Your task to perform on an android device: Open calendar and show me the first week of next month Image 0: 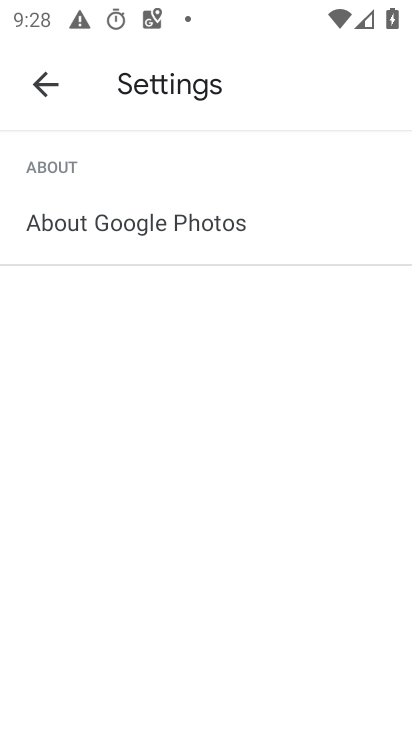
Step 0: press home button
Your task to perform on an android device: Open calendar and show me the first week of next month Image 1: 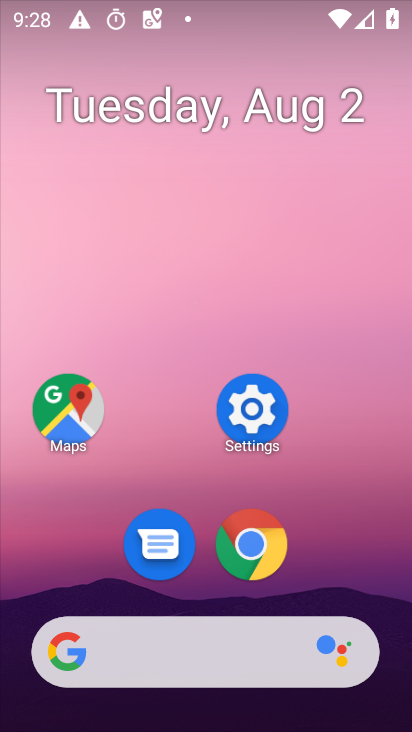
Step 1: drag from (218, 671) to (326, 43)
Your task to perform on an android device: Open calendar and show me the first week of next month Image 2: 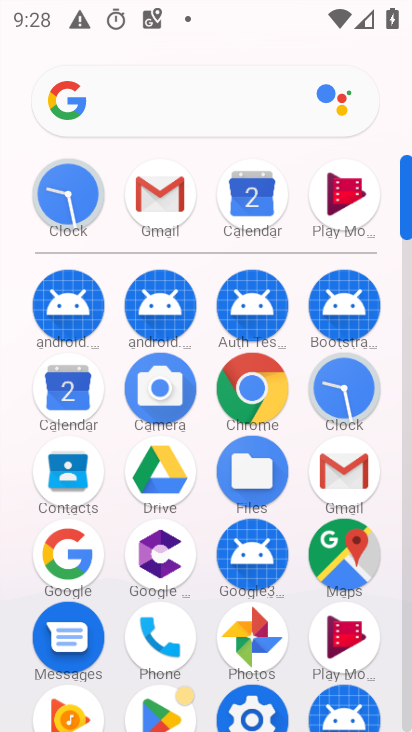
Step 2: click (77, 399)
Your task to perform on an android device: Open calendar and show me the first week of next month Image 3: 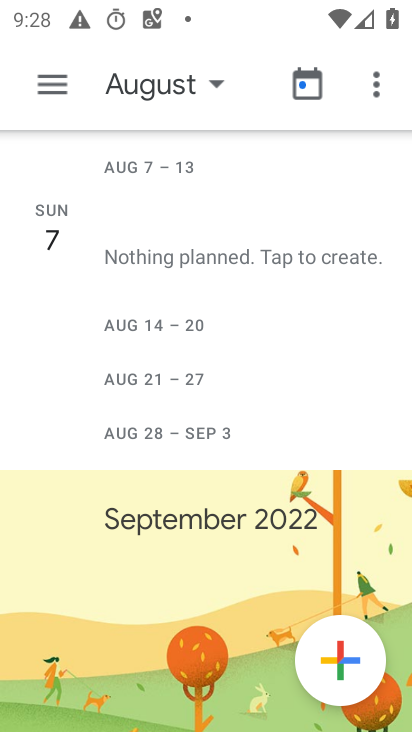
Step 3: click (146, 87)
Your task to perform on an android device: Open calendar and show me the first week of next month Image 4: 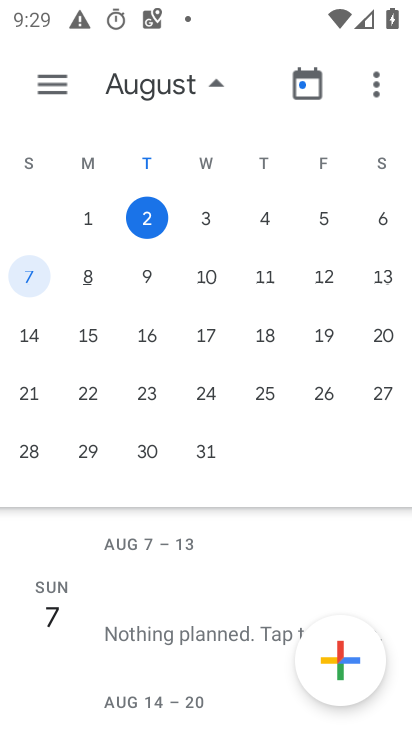
Step 4: drag from (352, 332) to (4, 331)
Your task to perform on an android device: Open calendar and show me the first week of next month Image 5: 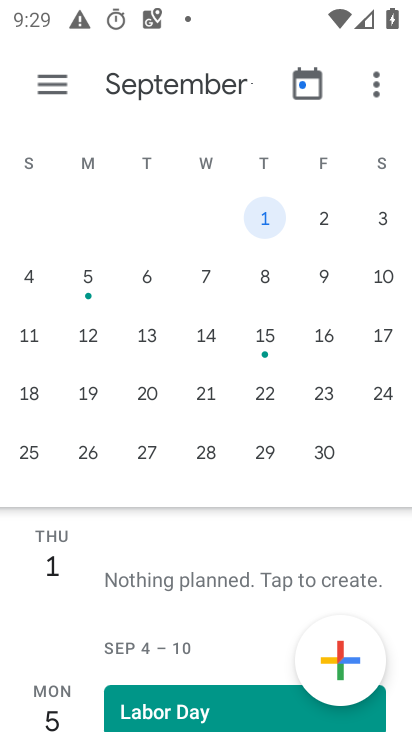
Step 5: click (266, 219)
Your task to perform on an android device: Open calendar and show me the first week of next month Image 6: 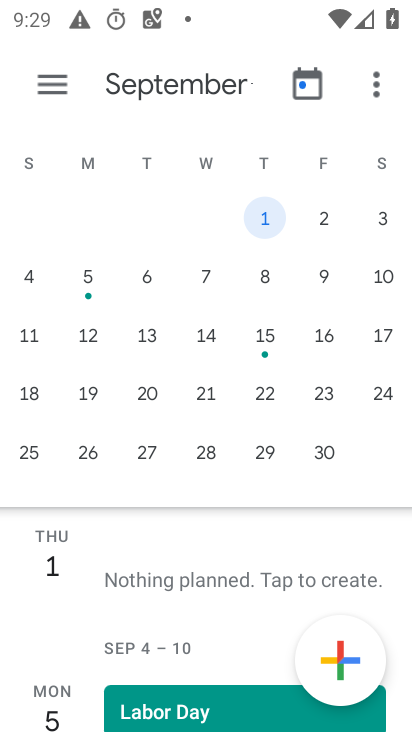
Step 6: click (264, 218)
Your task to perform on an android device: Open calendar and show me the first week of next month Image 7: 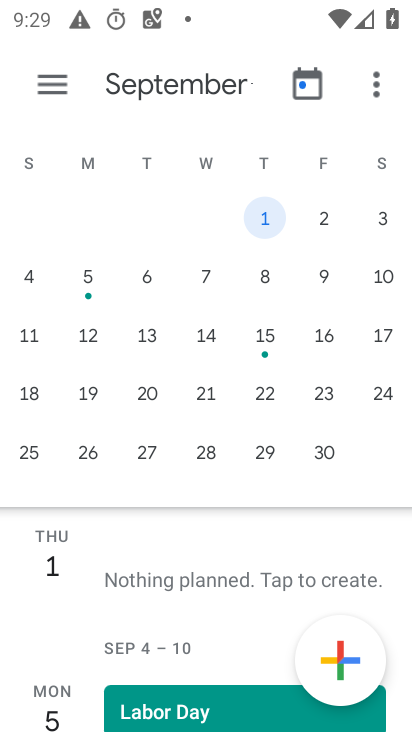
Step 7: click (51, 78)
Your task to perform on an android device: Open calendar and show me the first week of next month Image 8: 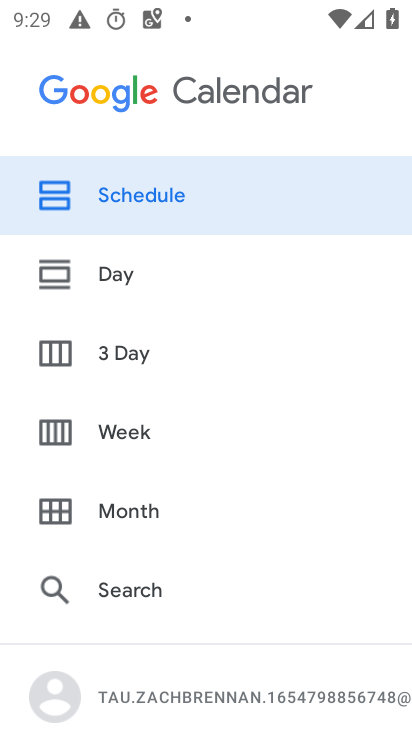
Step 8: click (111, 431)
Your task to perform on an android device: Open calendar and show me the first week of next month Image 9: 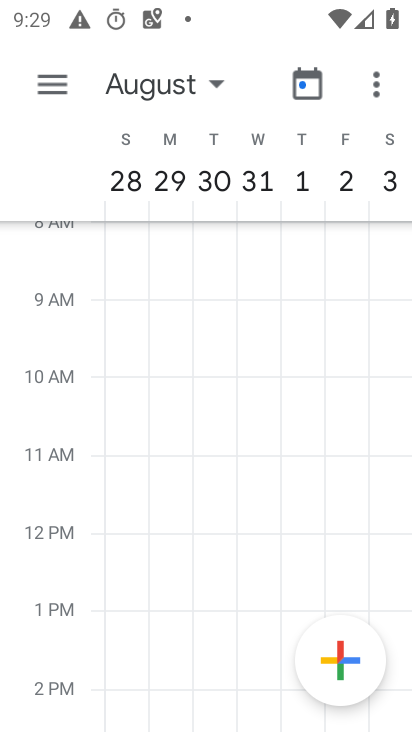
Step 9: task complete